Your task to perform on an android device: change your default location settings in chrome Image 0: 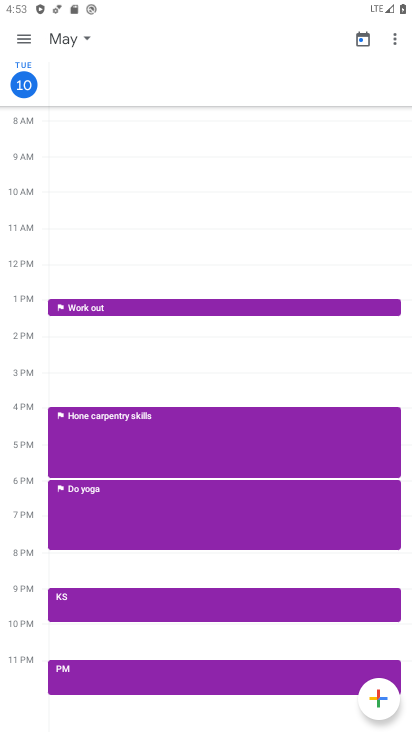
Step 0: press home button
Your task to perform on an android device: change your default location settings in chrome Image 1: 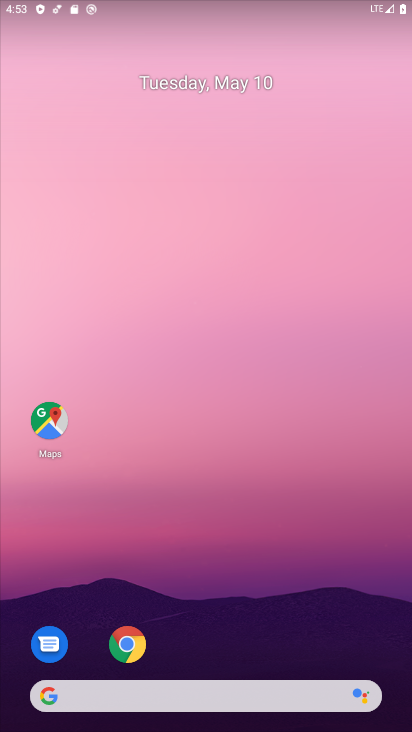
Step 1: click (126, 645)
Your task to perform on an android device: change your default location settings in chrome Image 2: 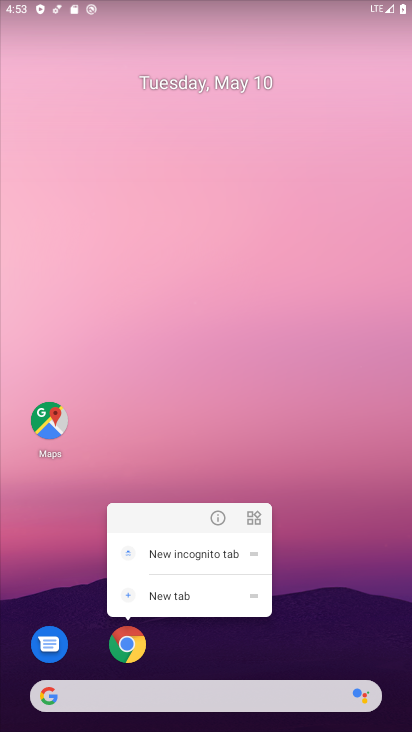
Step 2: click (126, 641)
Your task to perform on an android device: change your default location settings in chrome Image 3: 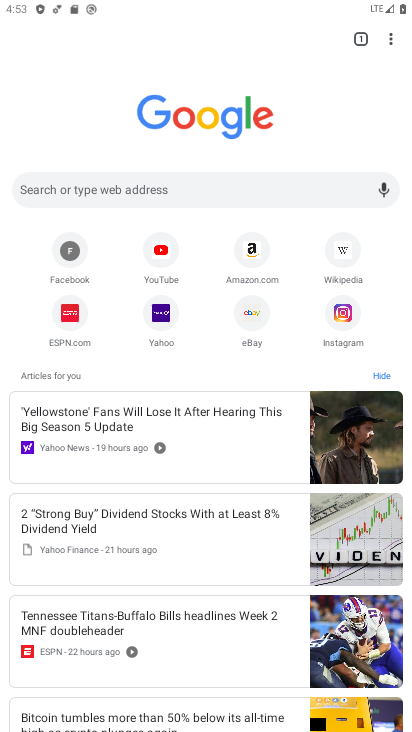
Step 3: click (389, 36)
Your task to perform on an android device: change your default location settings in chrome Image 4: 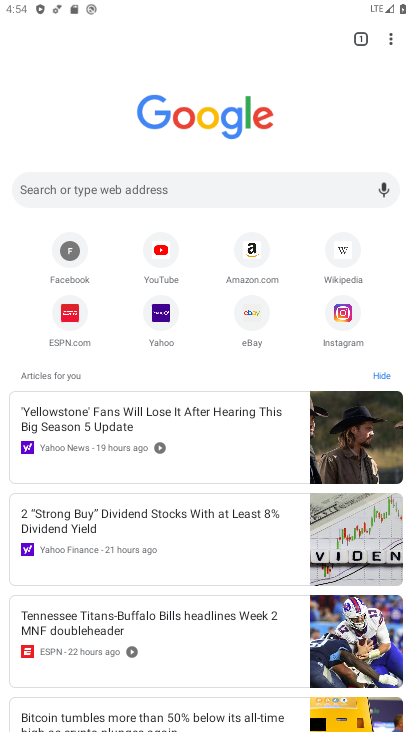
Step 4: click (389, 31)
Your task to perform on an android device: change your default location settings in chrome Image 5: 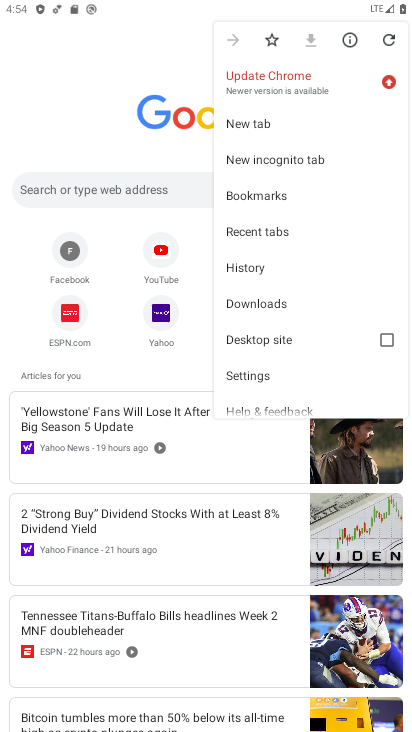
Step 5: click (269, 373)
Your task to perform on an android device: change your default location settings in chrome Image 6: 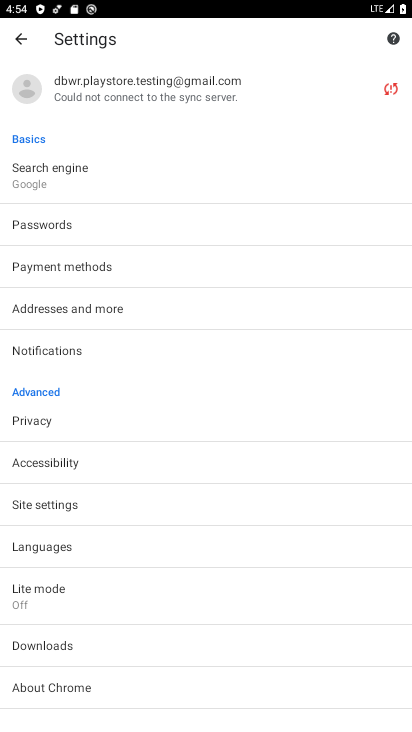
Step 6: drag from (103, 670) to (168, 360)
Your task to perform on an android device: change your default location settings in chrome Image 7: 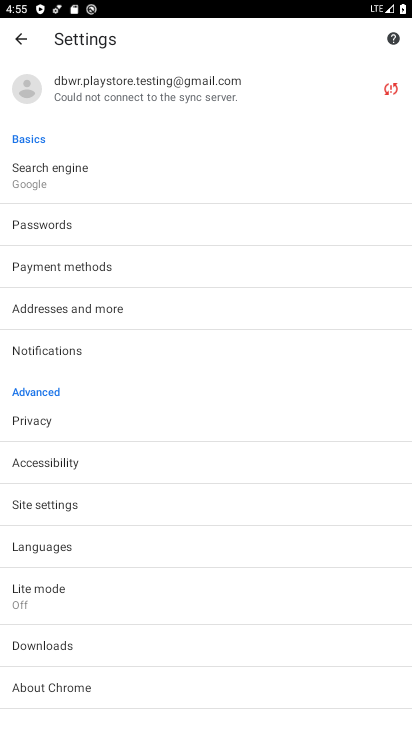
Step 7: click (83, 498)
Your task to perform on an android device: change your default location settings in chrome Image 8: 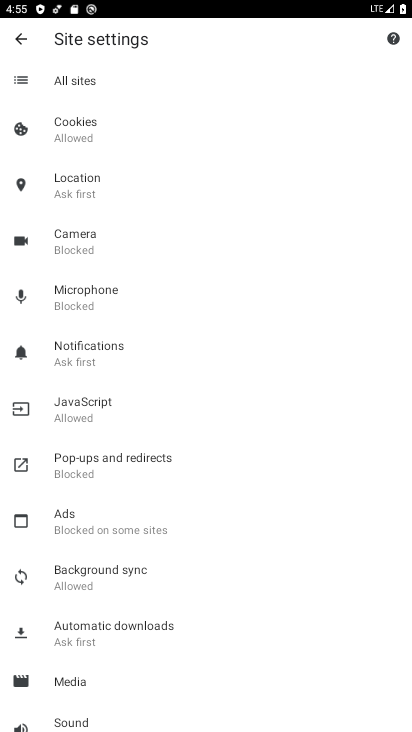
Step 8: click (114, 181)
Your task to perform on an android device: change your default location settings in chrome Image 9: 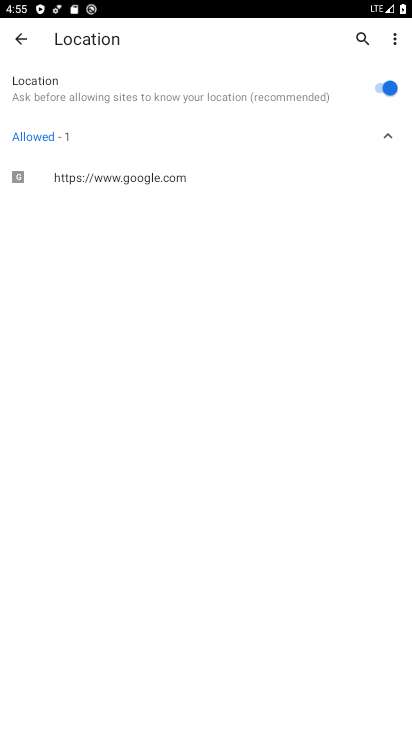
Step 9: click (374, 92)
Your task to perform on an android device: change your default location settings in chrome Image 10: 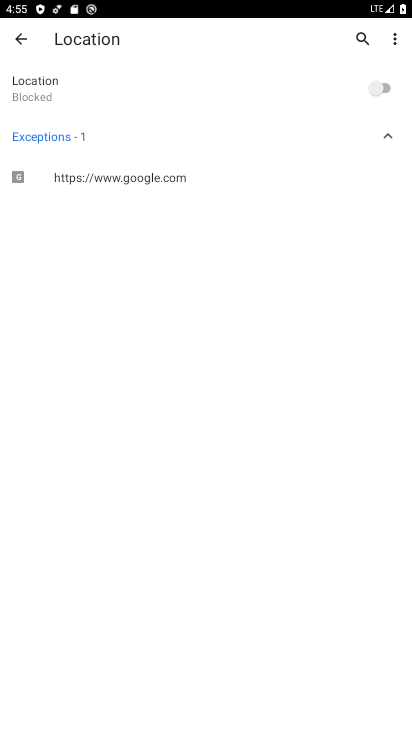
Step 10: task complete